Your task to perform on an android device: Open wifi settings Image 0: 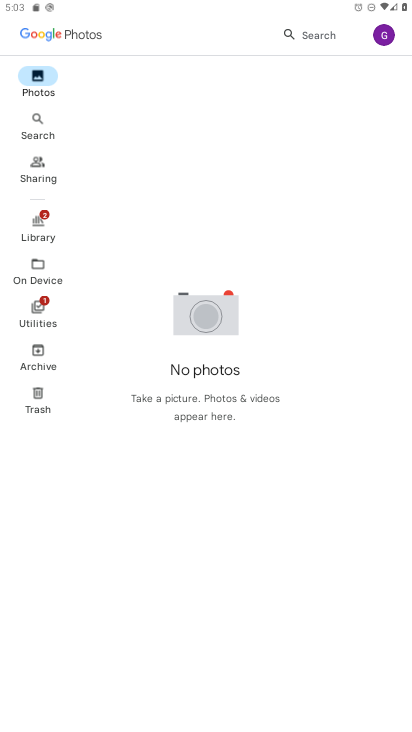
Step 0: press home button
Your task to perform on an android device: Open wifi settings Image 1: 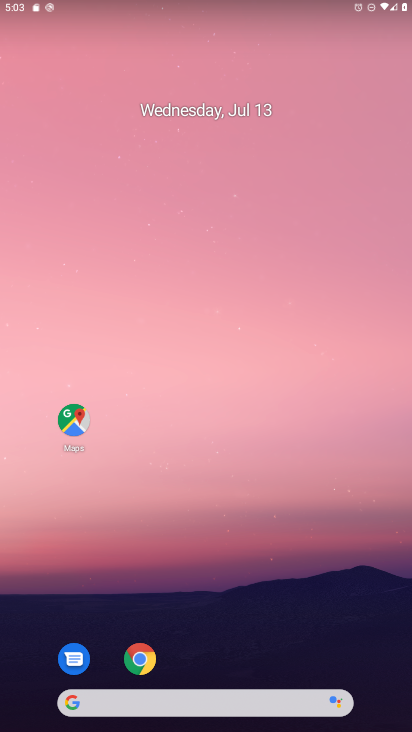
Step 1: drag from (281, 608) to (227, 145)
Your task to perform on an android device: Open wifi settings Image 2: 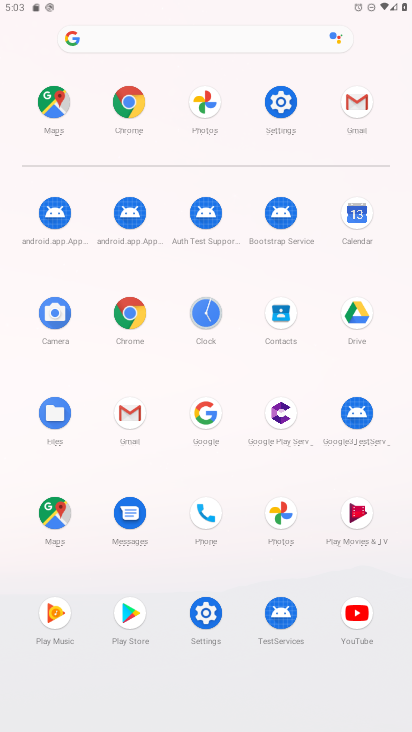
Step 2: click (273, 93)
Your task to perform on an android device: Open wifi settings Image 3: 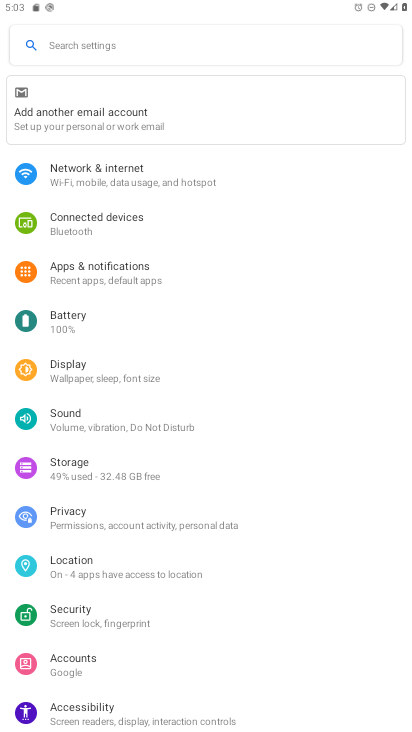
Step 3: click (119, 187)
Your task to perform on an android device: Open wifi settings Image 4: 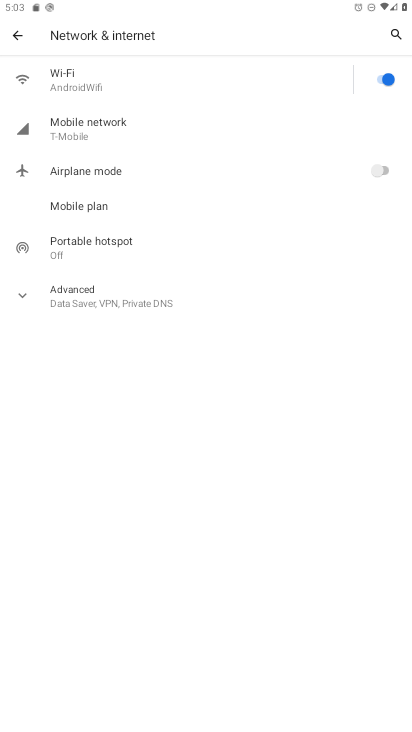
Step 4: click (207, 65)
Your task to perform on an android device: Open wifi settings Image 5: 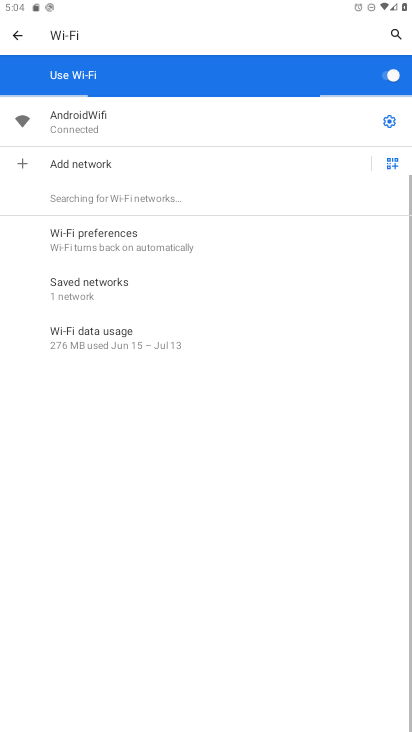
Step 5: click (394, 125)
Your task to perform on an android device: Open wifi settings Image 6: 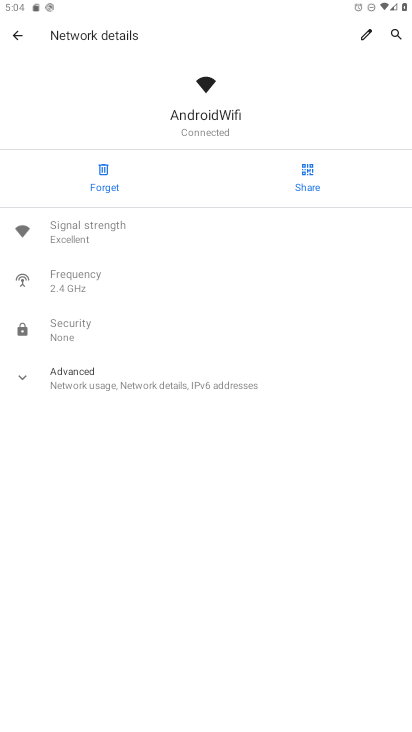
Step 6: task complete